Your task to perform on an android device: open app "Nova Launcher" Image 0: 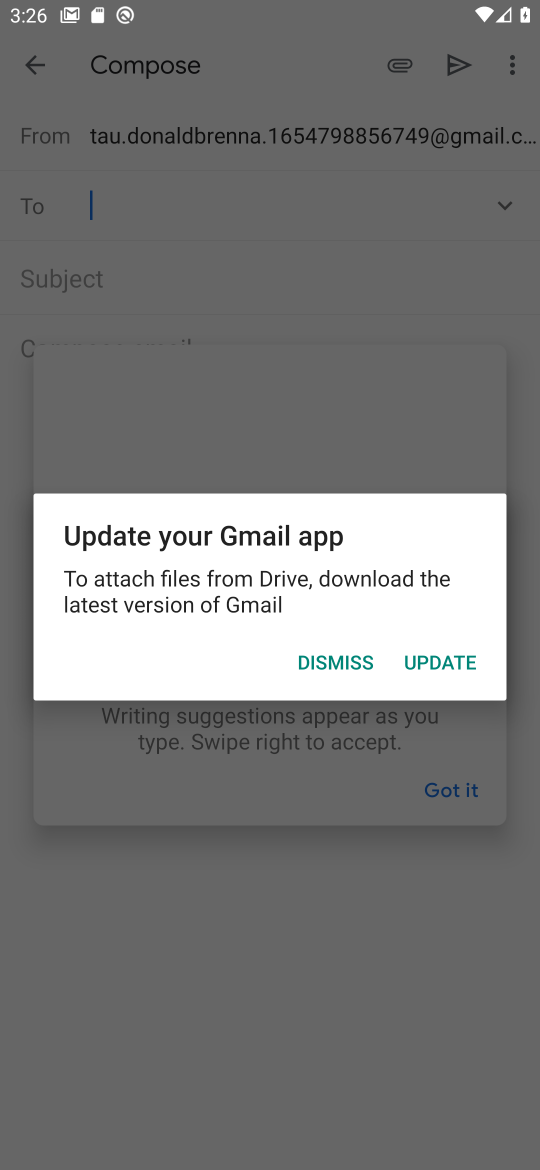
Step 0: click (435, 654)
Your task to perform on an android device: open app "Nova Launcher" Image 1: 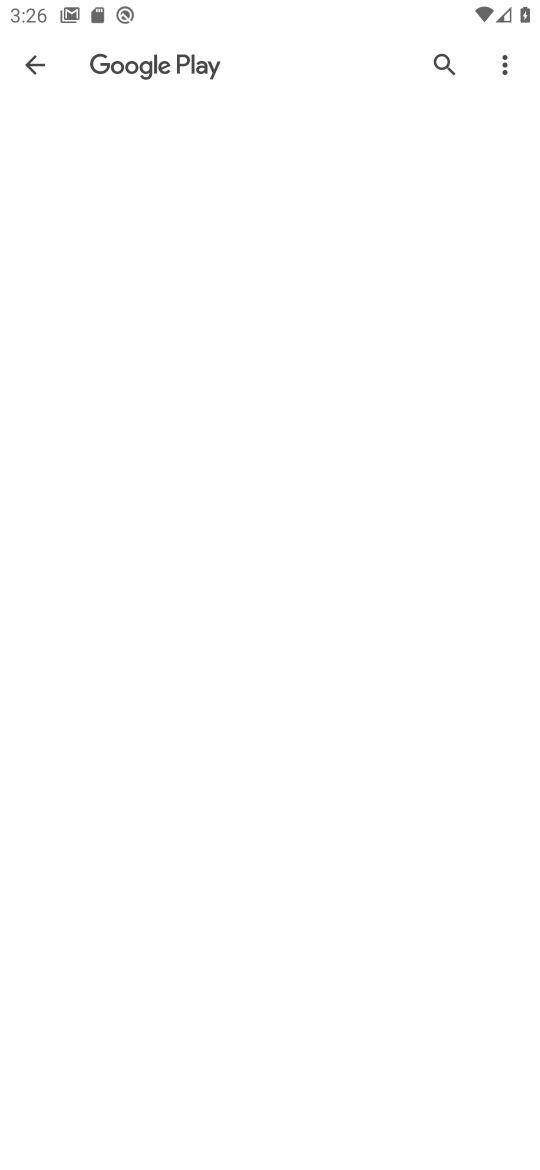
Step 1: press home button
Your task to perform on an android device: open app "Nova Launcher" Image 2: 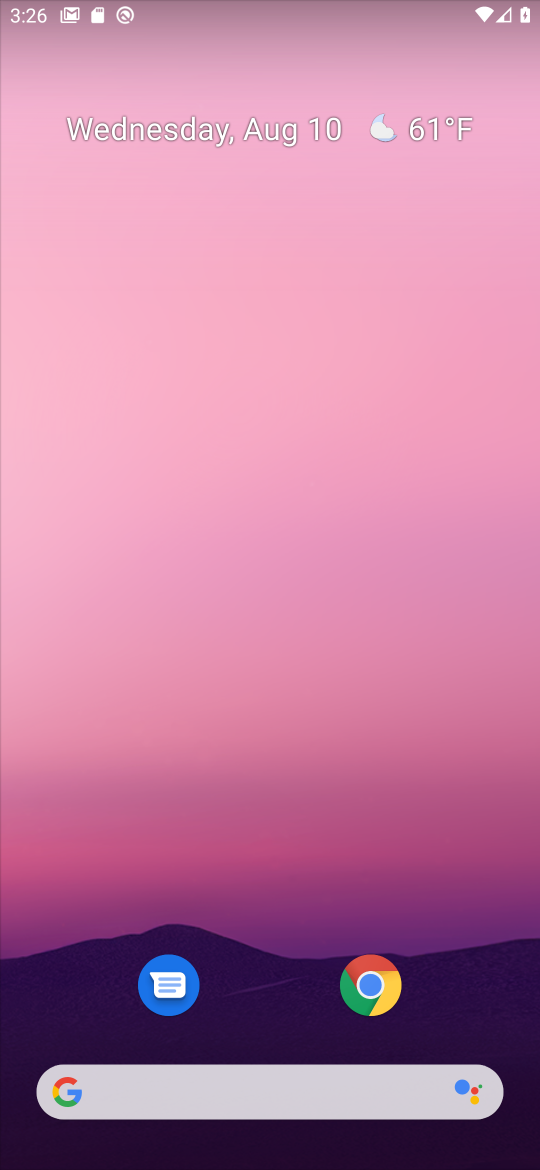
Step 2: drag from (254, 985) to (280, 82)
Your task to perform on an android device: open app "Nova Launcher" Image 3: 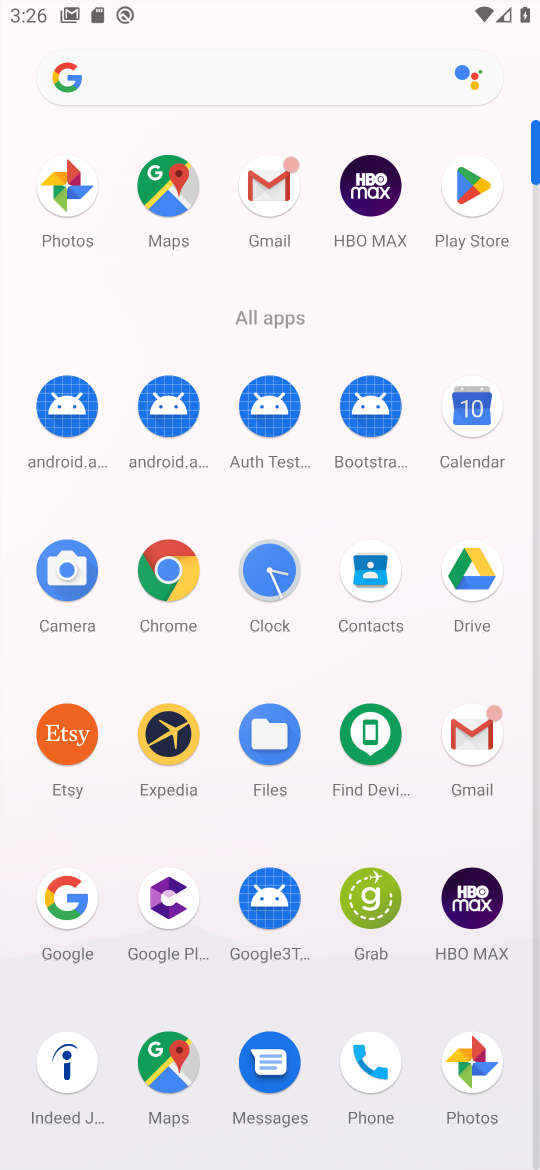
Step 3: click (466, 203)
Your task to perform on an android device: open app "Nova Launcher" Image 4: 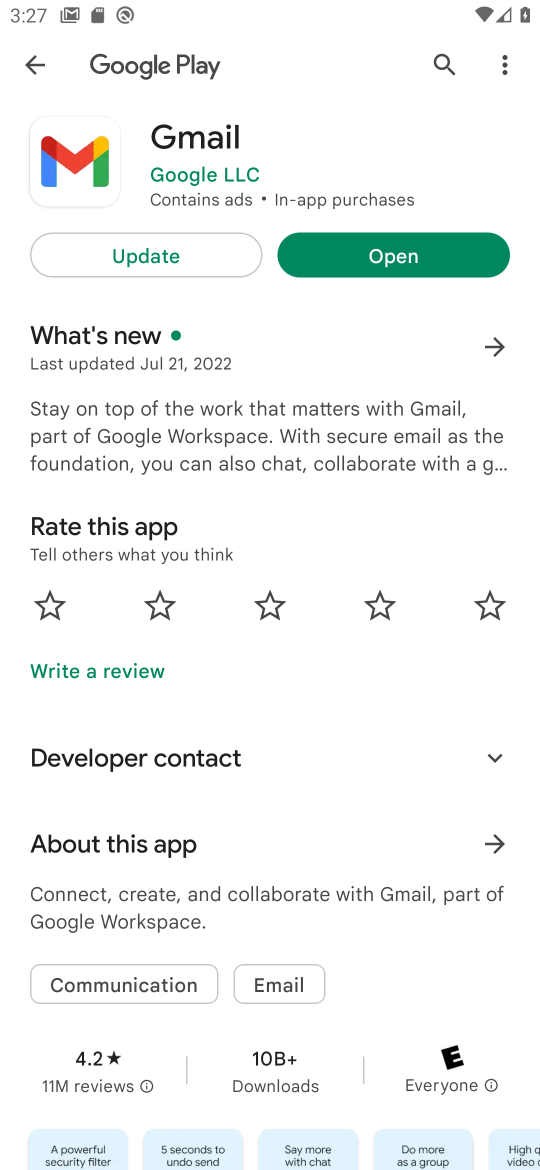
Step 4: click (36, 64)
Your task to perform on an android device: open app "Nova Launcher" Image 5: 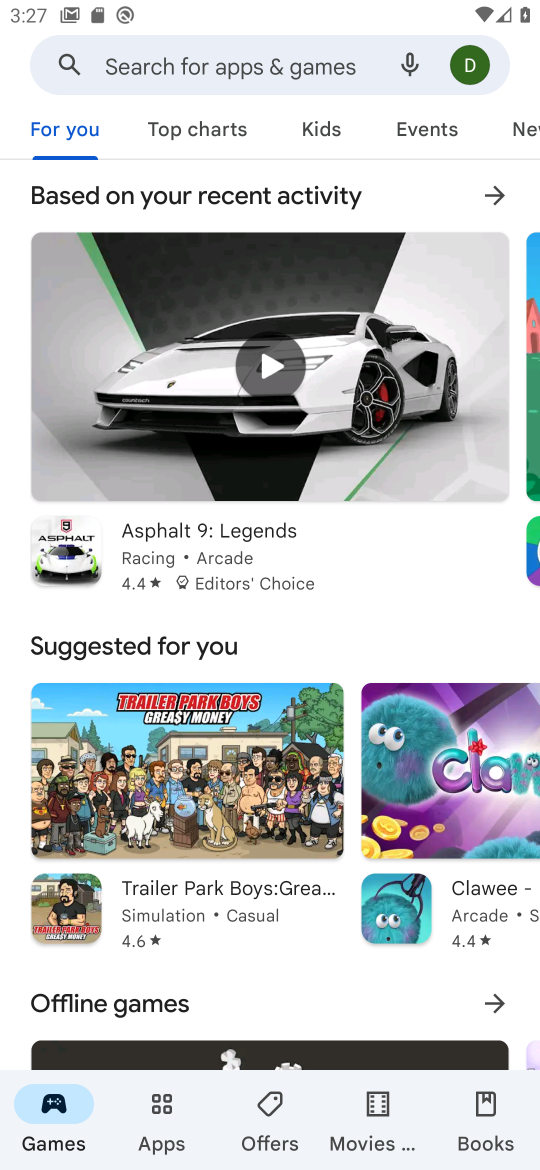
Step 5: type "Nova Launcher"
Your task to perform on an android device: open app "Nova Launcher" Image 6: 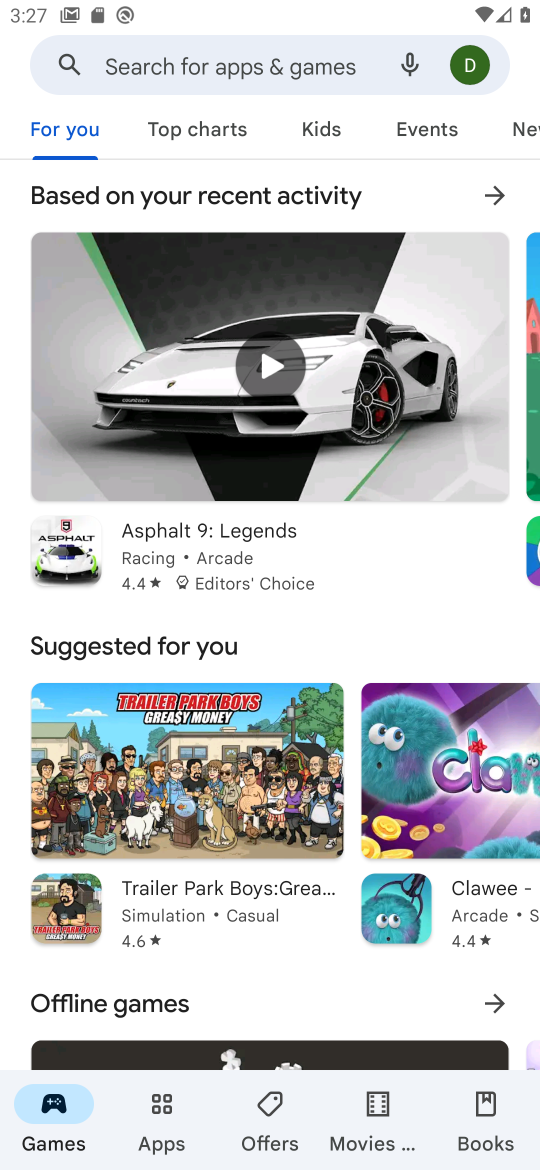
Step 6: click (245, 56)
Your task to perform on an android device: open app "Nova Launcher" Image 7: 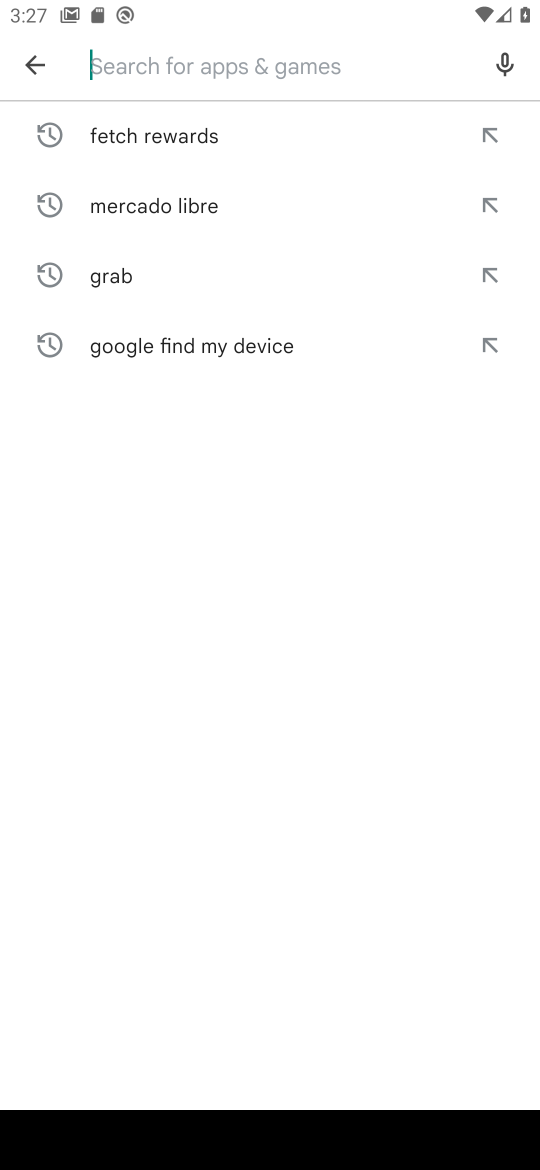
Step 7: type "Nova Launcher"
Your task to perform on an android device: open app "Nova Launcher" Image 8: 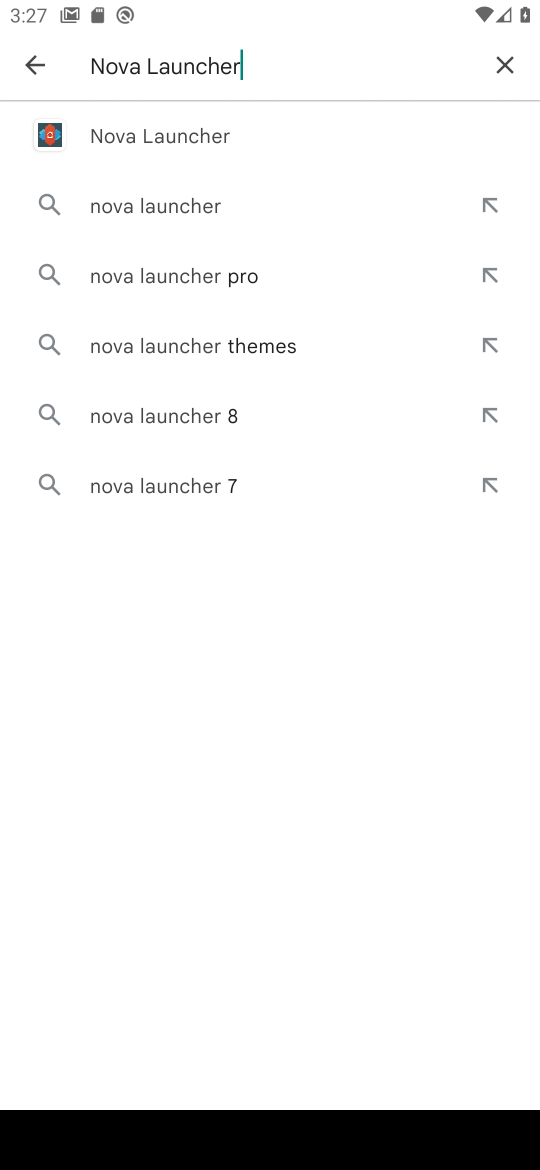
Step 8: click (158, 141)
Your task to perform on an android device: open app "Nova Launcher" Image 9: 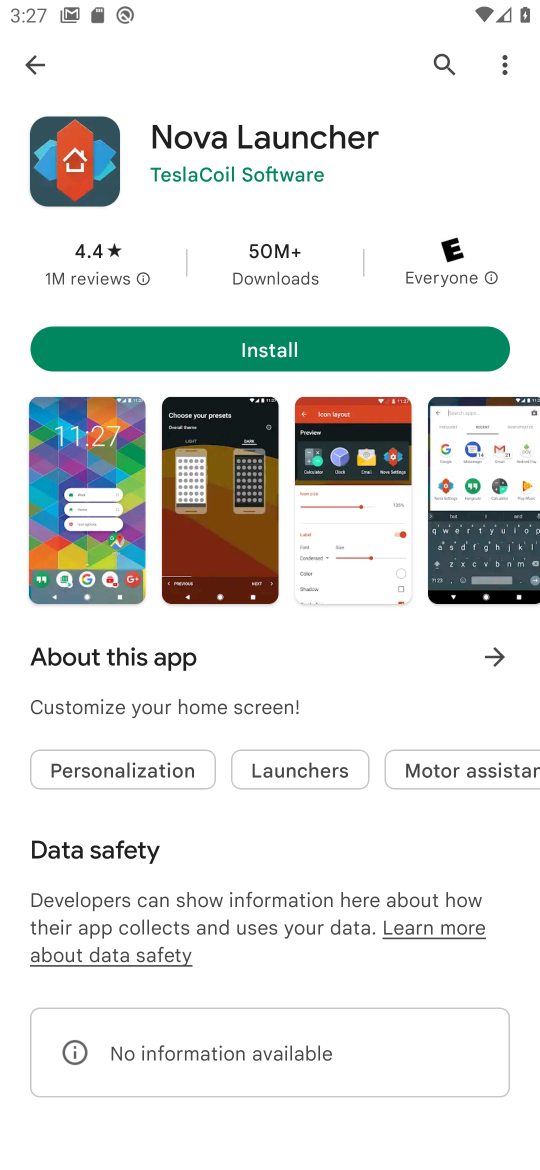
Step 9: click (254, 345)
Your task to perform on an android device: open app "Nova Launcher" Image 10: 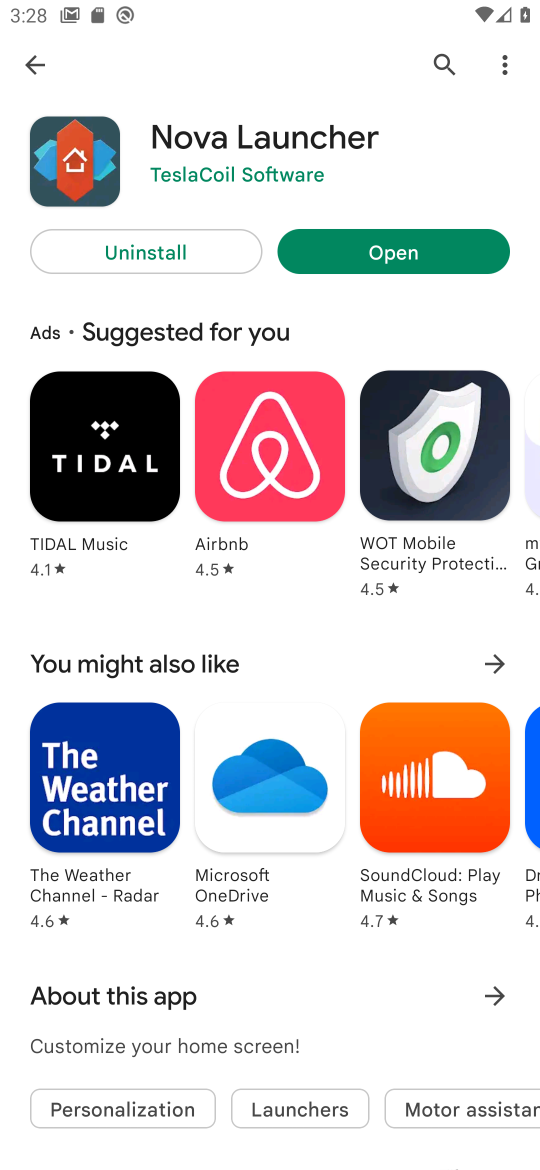
Step 10: click (410, 256)
Your task to perform on an android device: open app "Nova Launcher" Image 11: 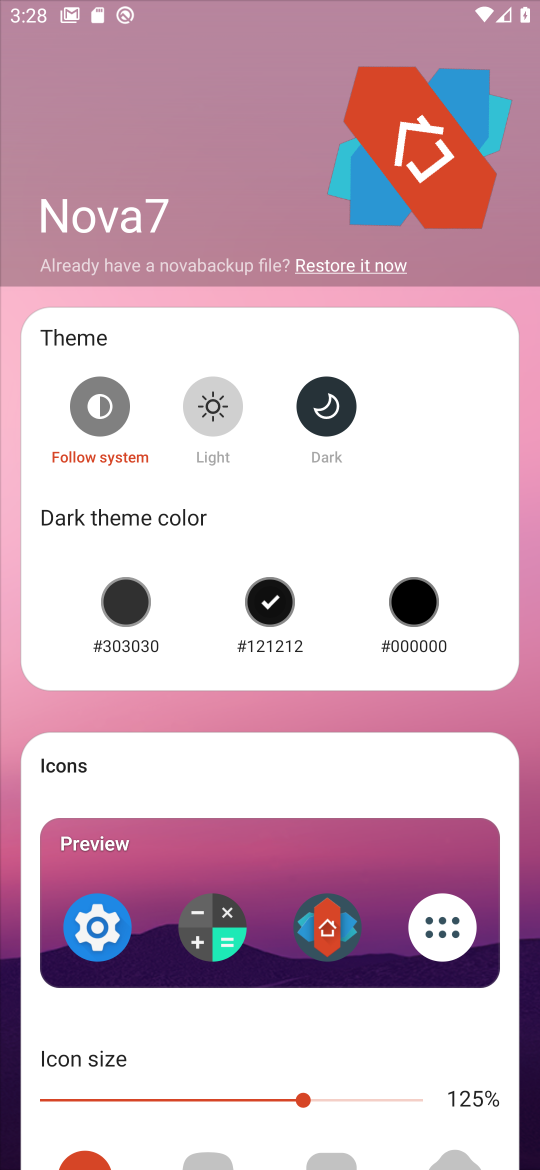
Step 11: task complete